Your task to perform on an android device: Open network settings Image 0: 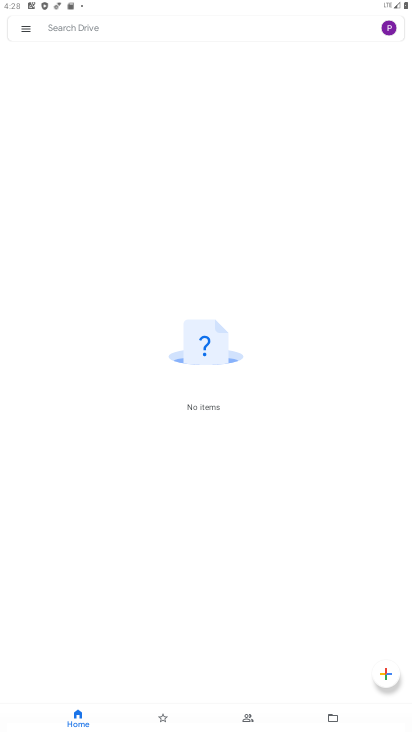
Step 0: press home button
Your task to perform on an android device: Open network settings Image 1: 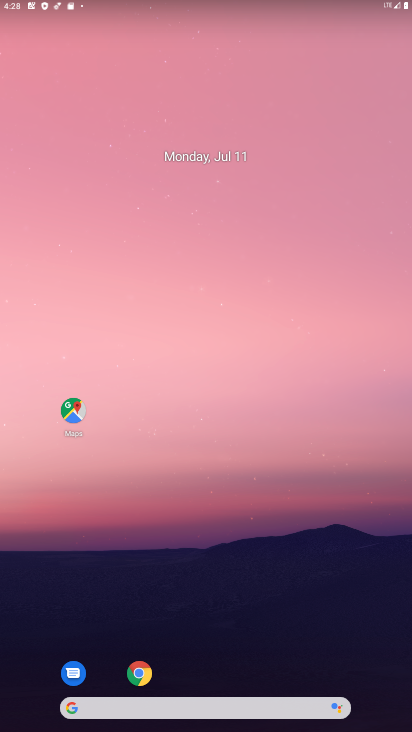
Step 1: drag from (270, 597) to (232, 94)
Your task to perform on an android device: Open network settings Image 2: 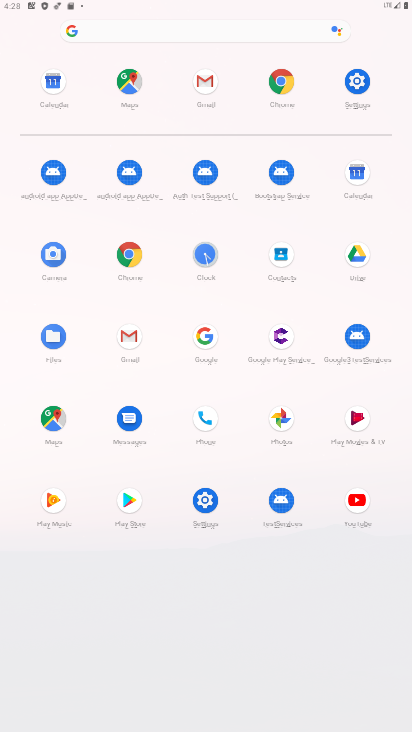
Step 2: click (355, 77)
Your task to perform on an android device: Open network settings Image 3: 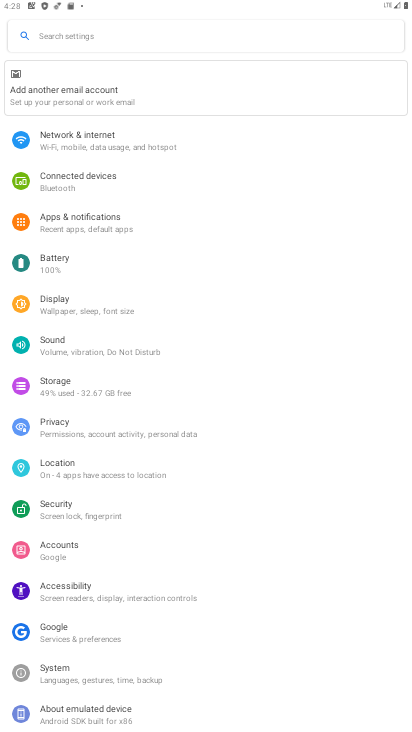
Step 3: click (123, 137)
Your task to perform on an android device: Open network settings Image 4: 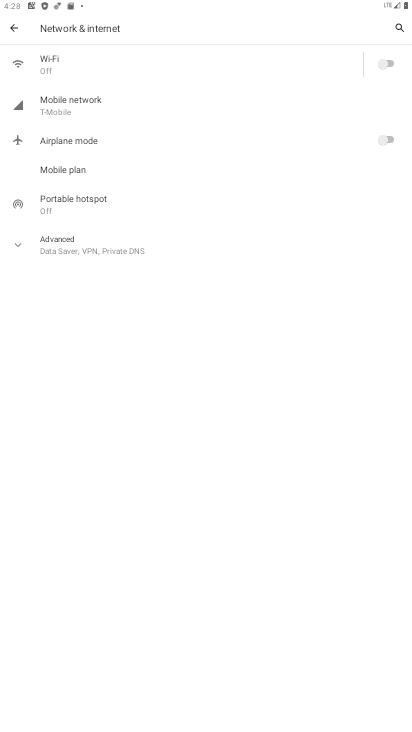
Step 4: click (91, 245)
Your task to perform on an android device: Open network settings Image 5: 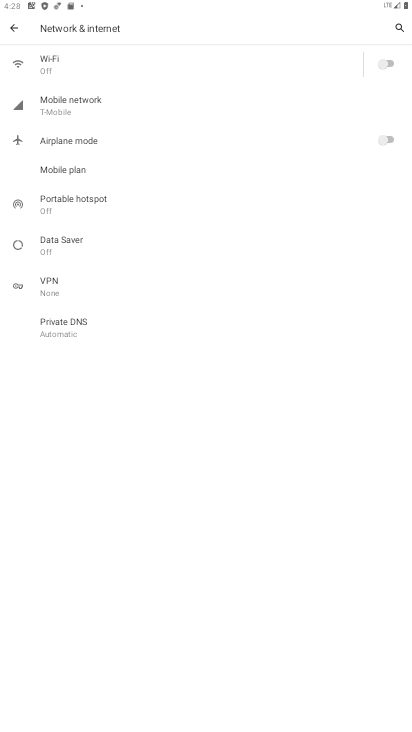
Step 5: task complete